Your task to perform on an android device: Search for Italian restaurants on Maps Image 0: 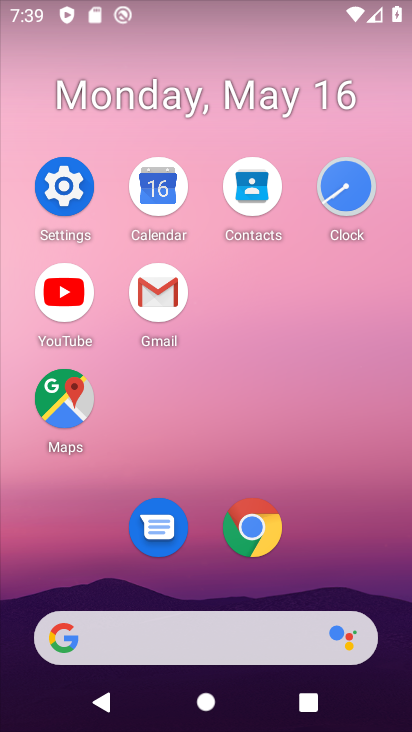
Step 0: click (76, 407)
Your task to perform on an android device: Search for Italian restaurants on Maps Image 1: 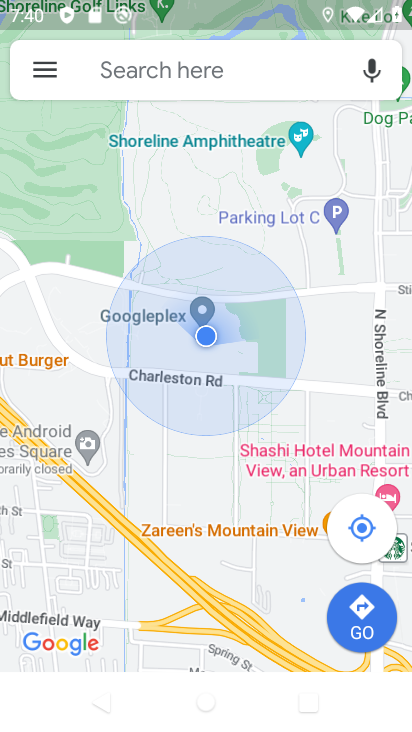
Step 1: click (233, 86)
Your task to perform on an android device: Search for Italian restaurants on Maps Image 2: 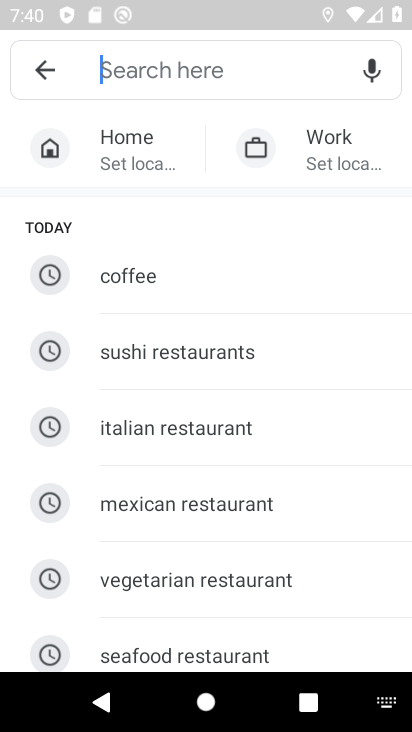
Step 2: click (241, 427)
Your task to perform on an android device: Search for Italian restaurants on Maps Image 3: 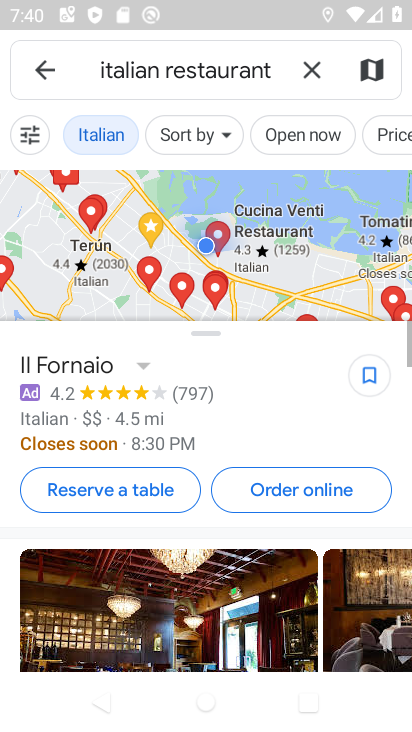
Step 3: task complete